Your task to perform on an android device: Open Google Image 0: 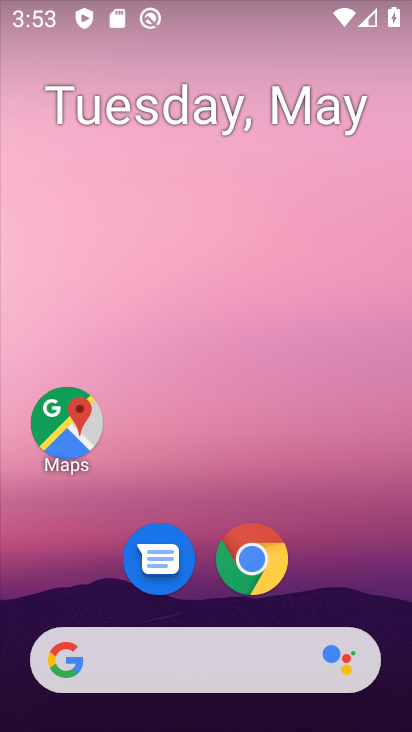
Step 0: drag from (351, 599) to (260, 117)
Your task to perform on an android device: Open Google Image 1: 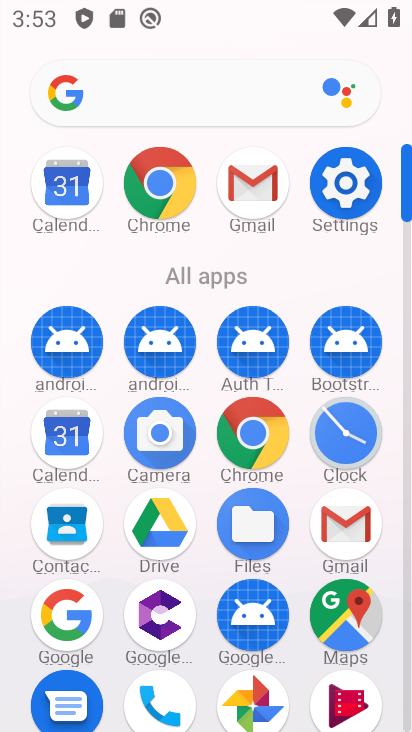
Step 1: click (76, 607)
Your task to perform on an android device: Open Google Image 2: 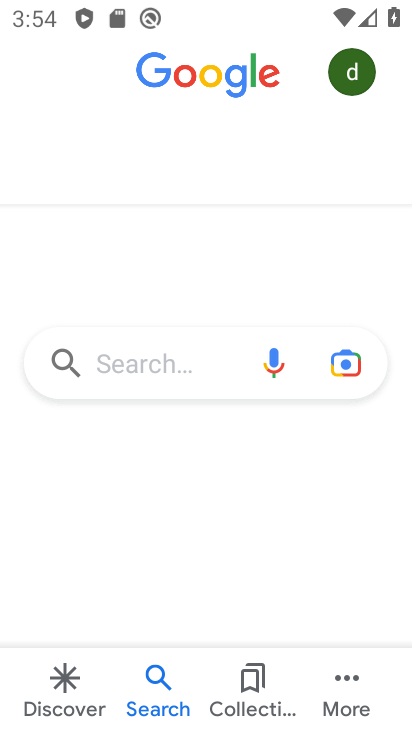
Step 2: task complete